Your task to perform on an android device: Go to Amazon Image 0: 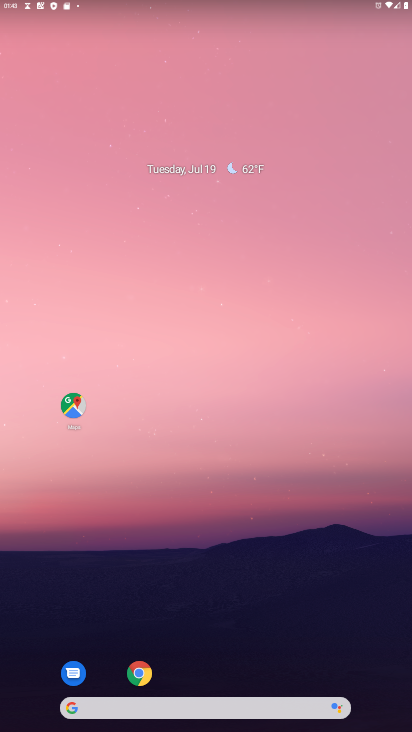
Step 0: drag from (287, 645) to (326, 96)
Your task to perform on an android device: Go to Amazon Image 1: 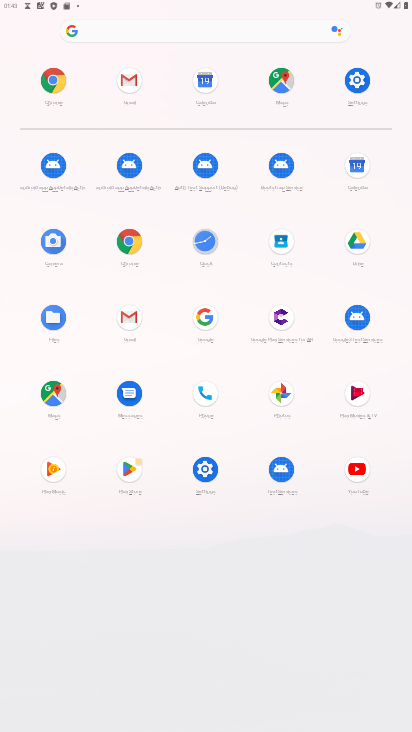
Step 1: click (285, 78)
Your task to perform on an android device: Go to Amazon Image 2: 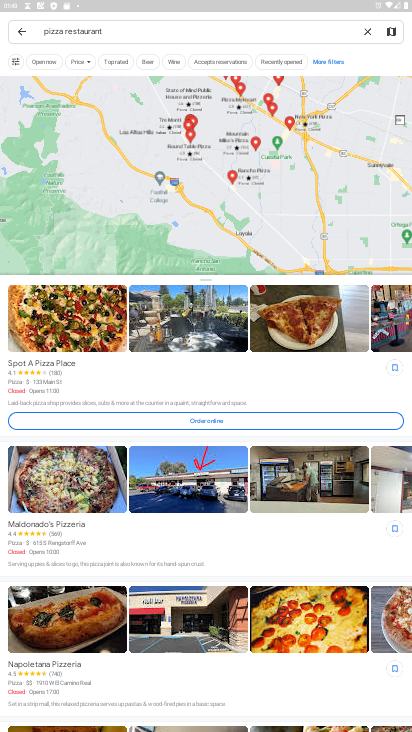
Step 2: press home button
Your task to perform on an android device: Go to Amazon Image 3: 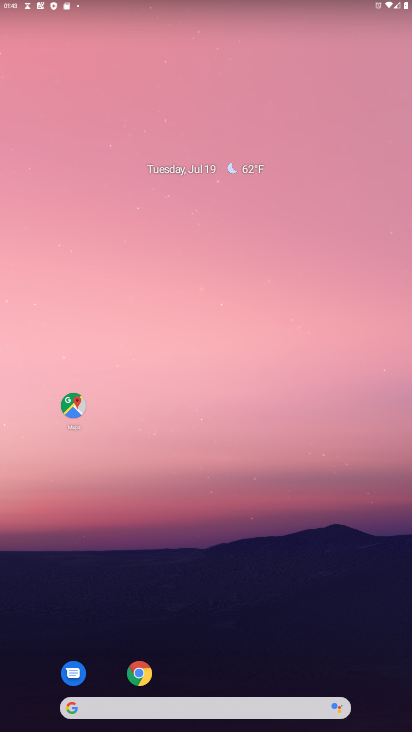
Step 3: click (140, 672)
Your task to perform on an android device: Go to Amazon Image 4: 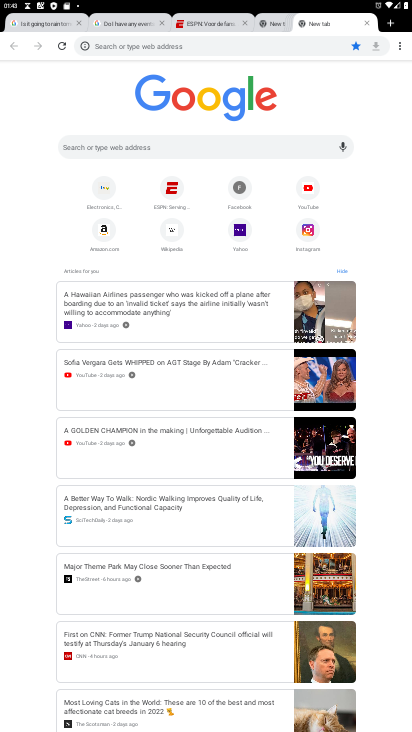
Step 4: click (109, 229)
Your task to perform on an android device: Go to Amazon Image 5: 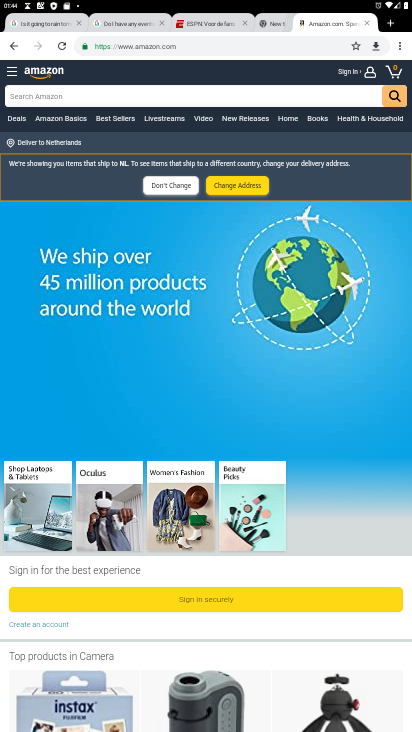
Step 5: task complete